Your task to perform on an android device: Play the latest video from the Washington Post Image 0: 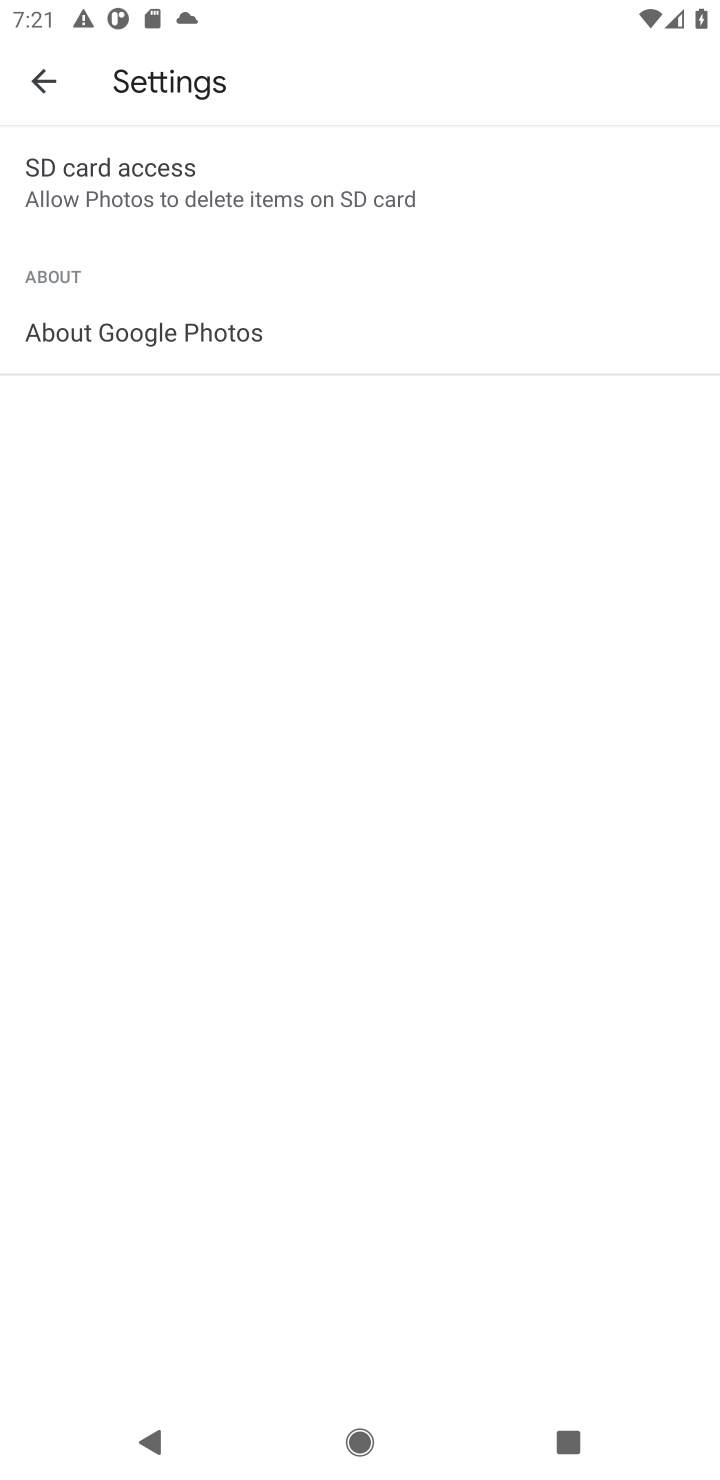
Step 0: press home button
Your task to perform on an android device: Play the latest video from the Washington Post Image 1: 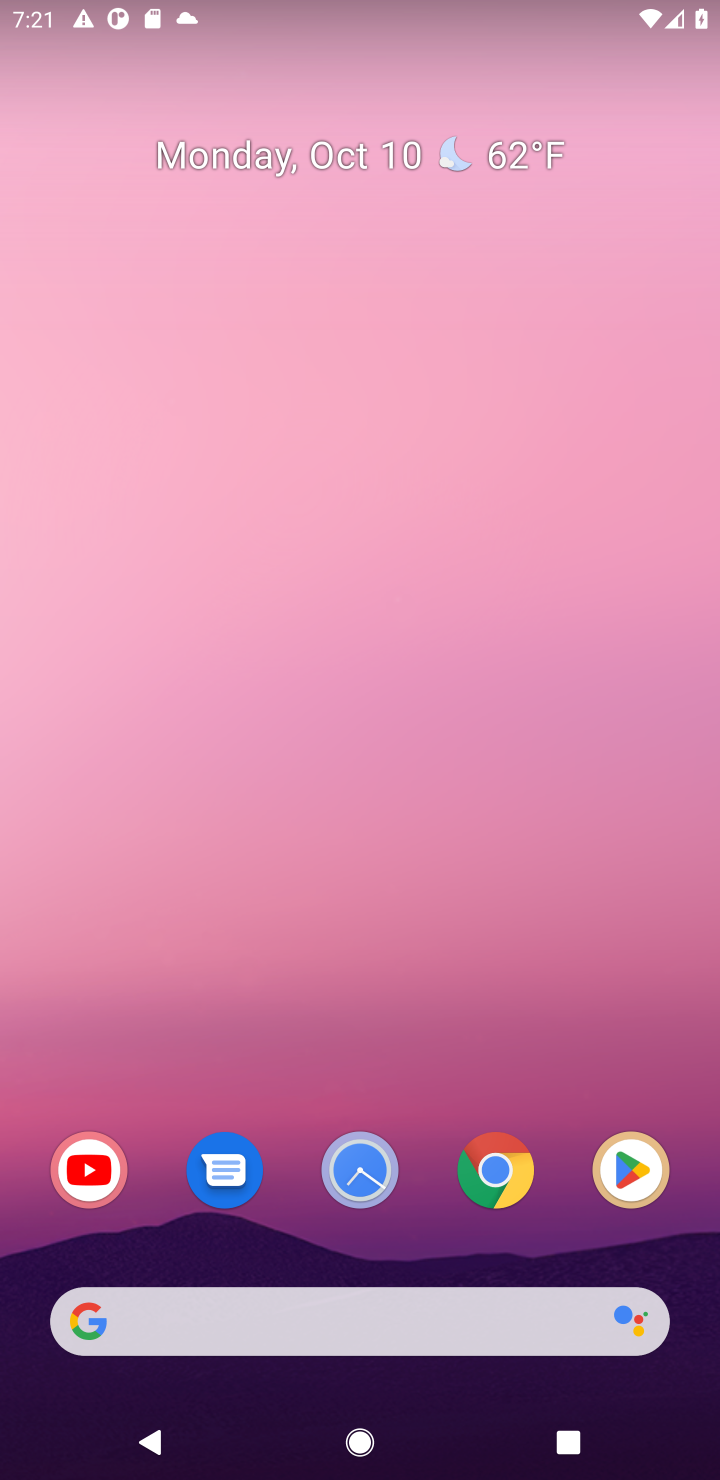
Step 1: click (116, 1166)
Your task to perform on an android device: Play the latest video from the Washington Post Image 2: 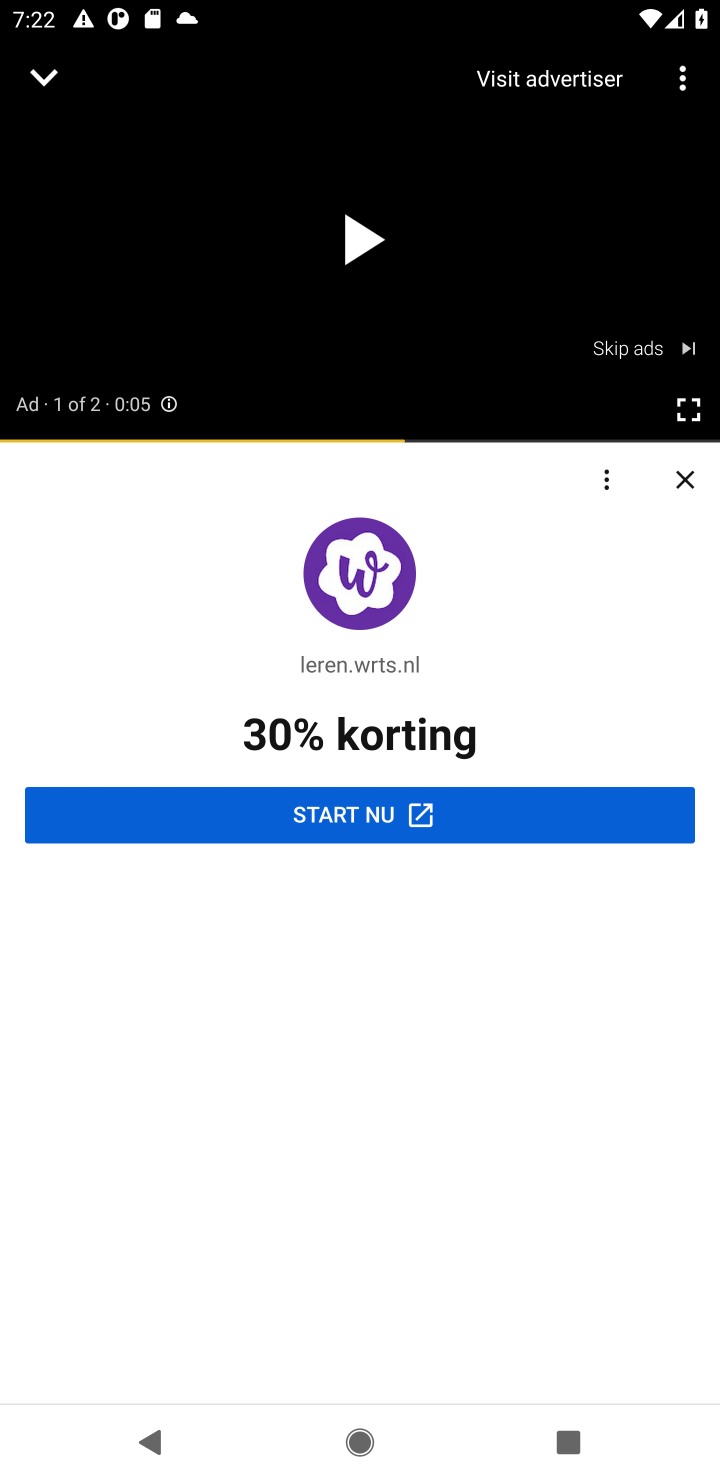
Step 2: drag from (606, 305) to (704, 1479)
Your task to perform on an android device: Play the latest video from the Washington Post Image 3: 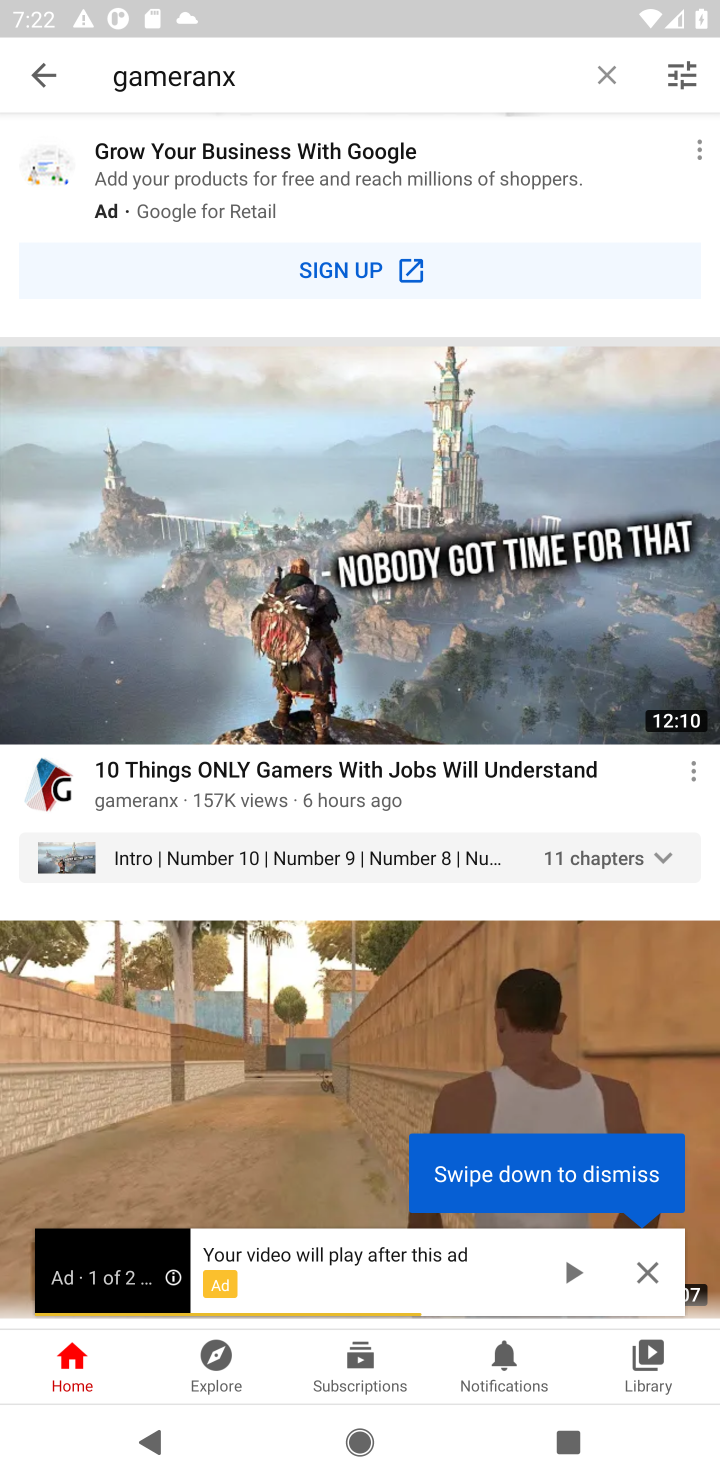
Step 3: click (641, 1273)
Your task to perform on an android device: Play the latest video from the Washington Post Image 4: 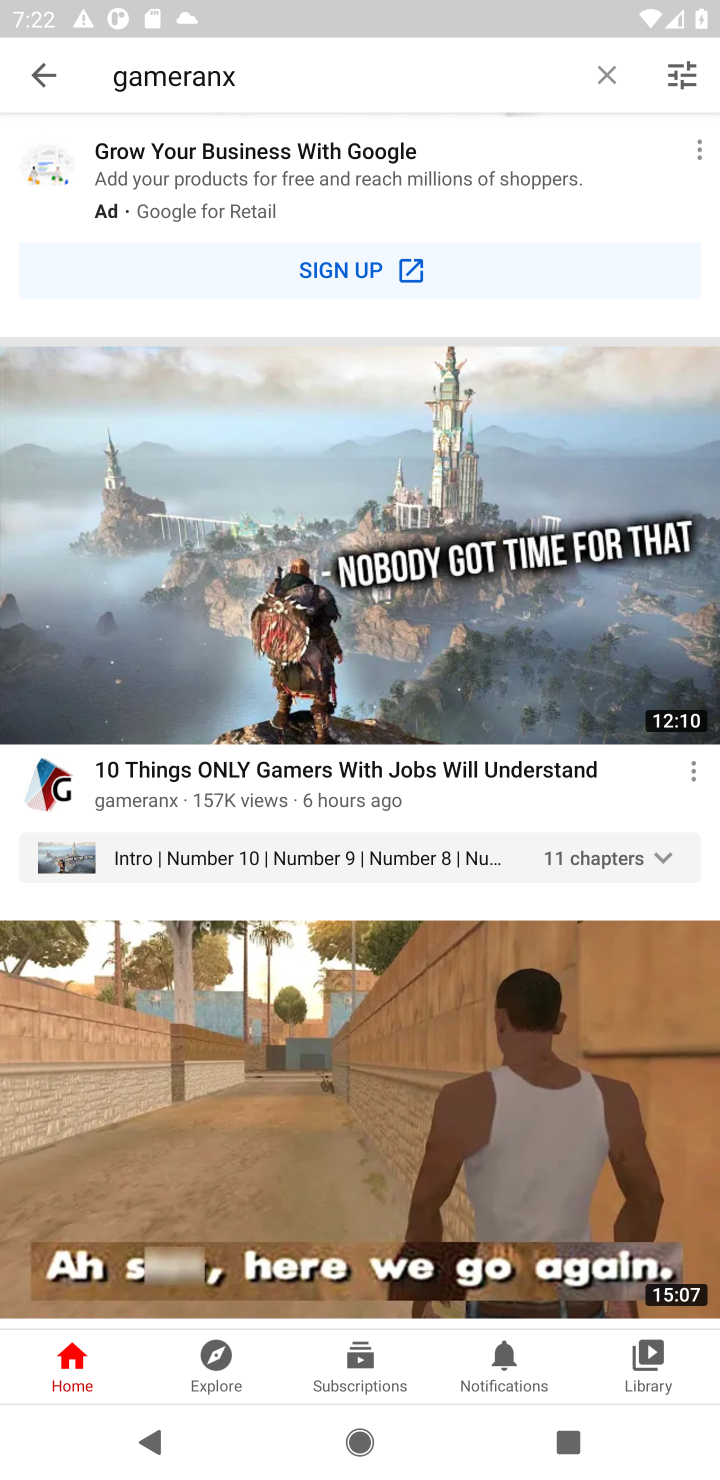
Step 4: click (601, 76)
Your task to perform on an android device: Play the latest video from the Washington Post Image 5: 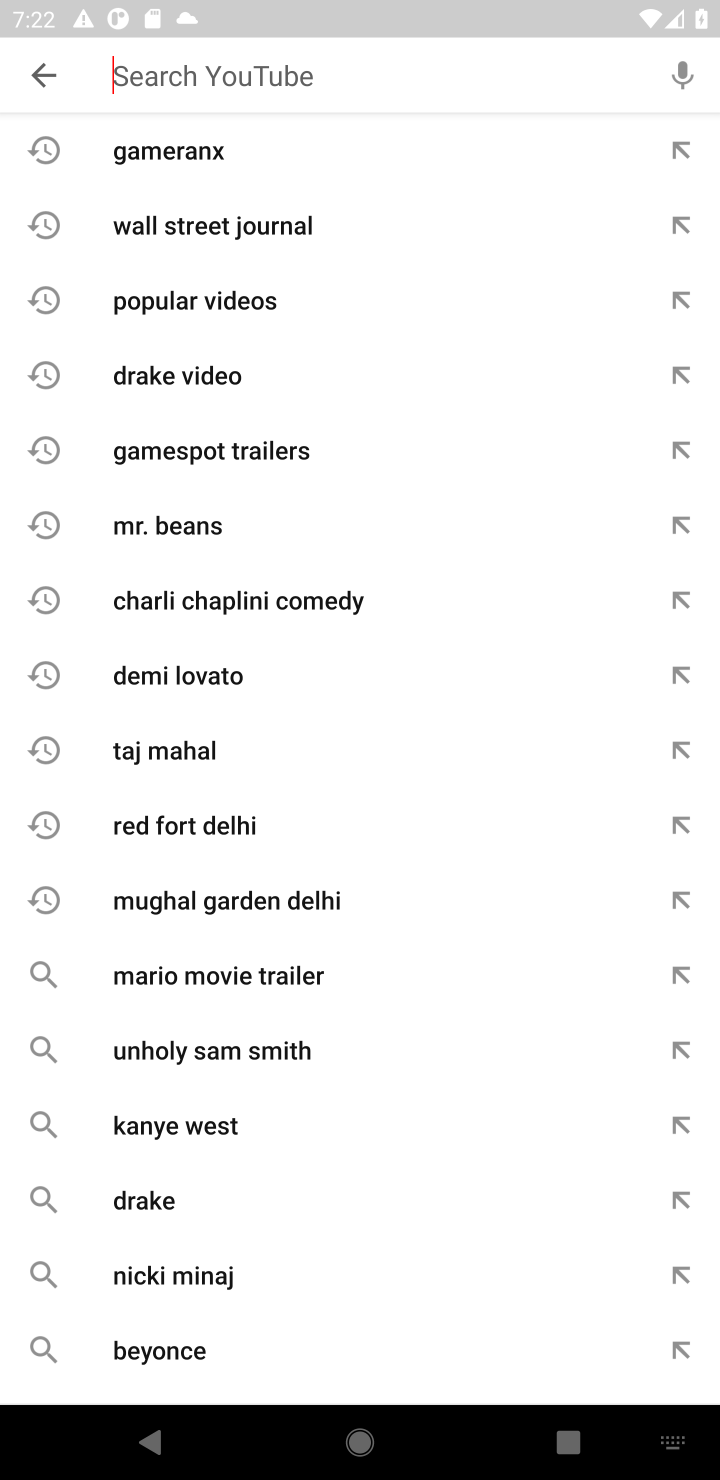
Step 5: type "Washington Post"
Your task to perform on an android device: Play the latest video from the Washington Post Image 6: 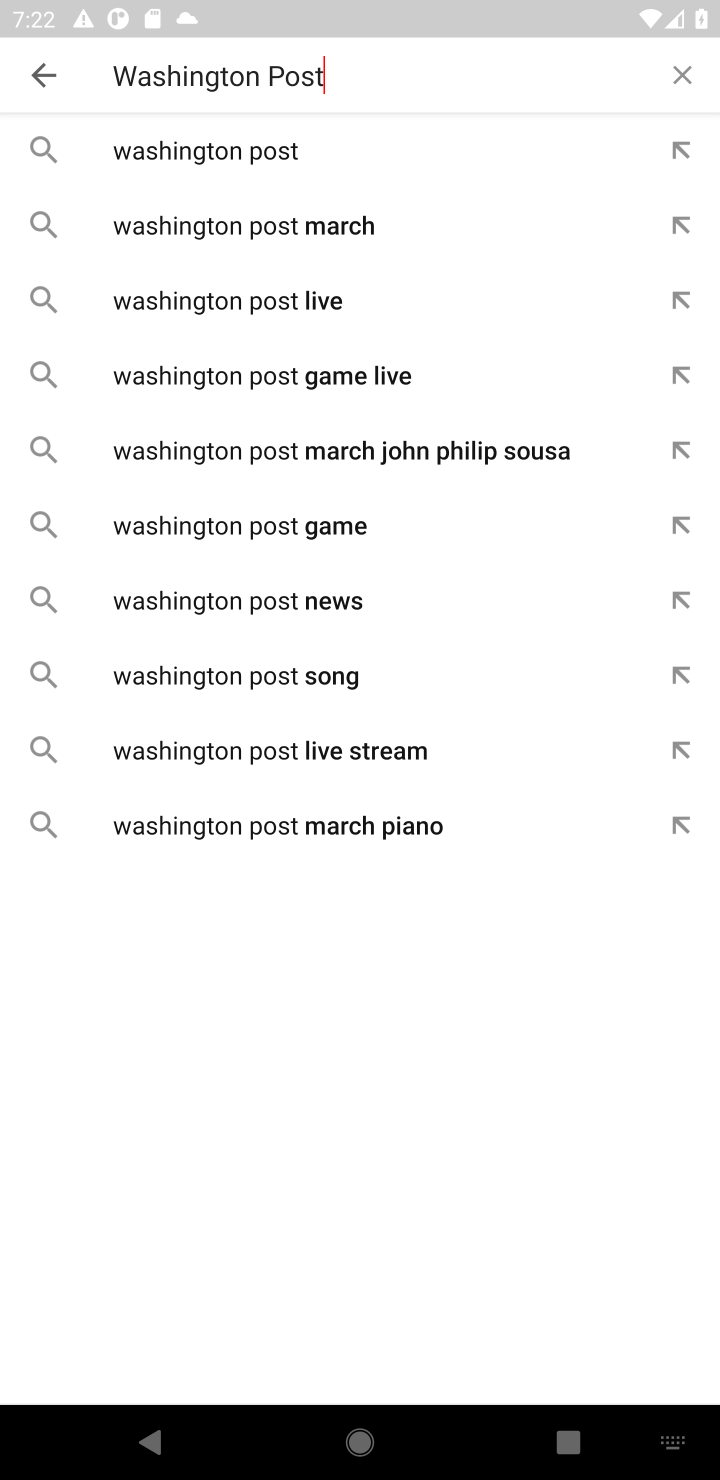
Step 6: click (375, 147)
Your task to perform on an android device: Play the latest video from the Washington Post Image 7: 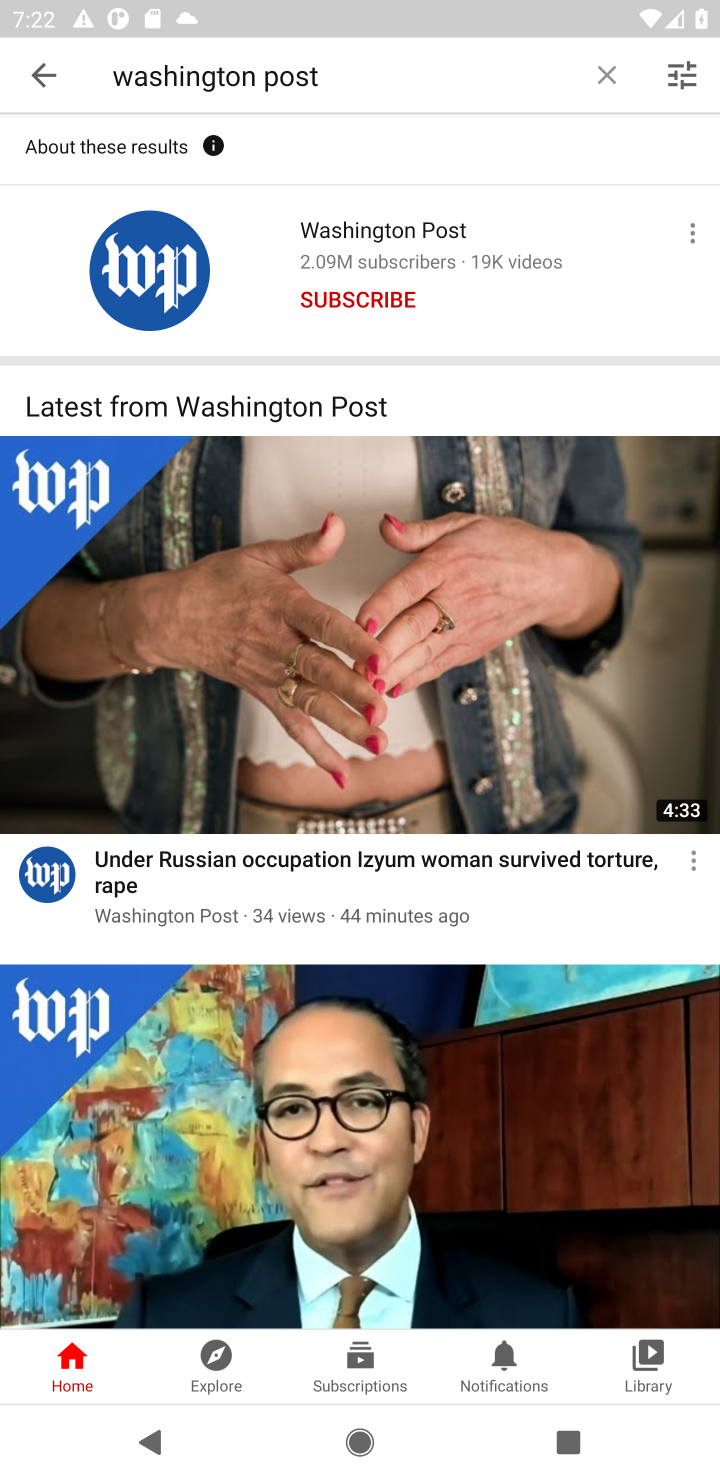
Step 7: click (430, 242)
Your task to perform on an android device: Play the latest video from the Washington Post Image 8: 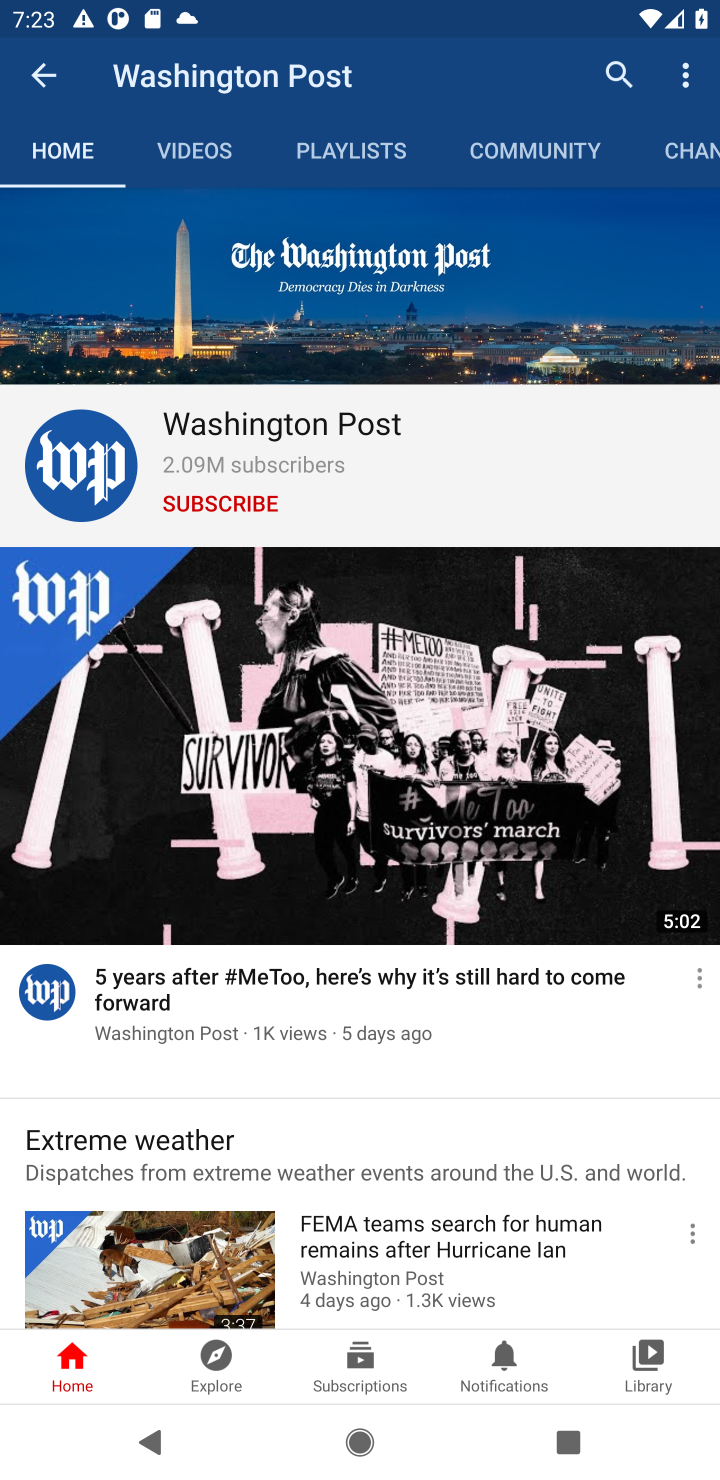
Step 8: click (180, 166)
Your task to perform on an android device: Play the latest video from the Washington Post Image 9: 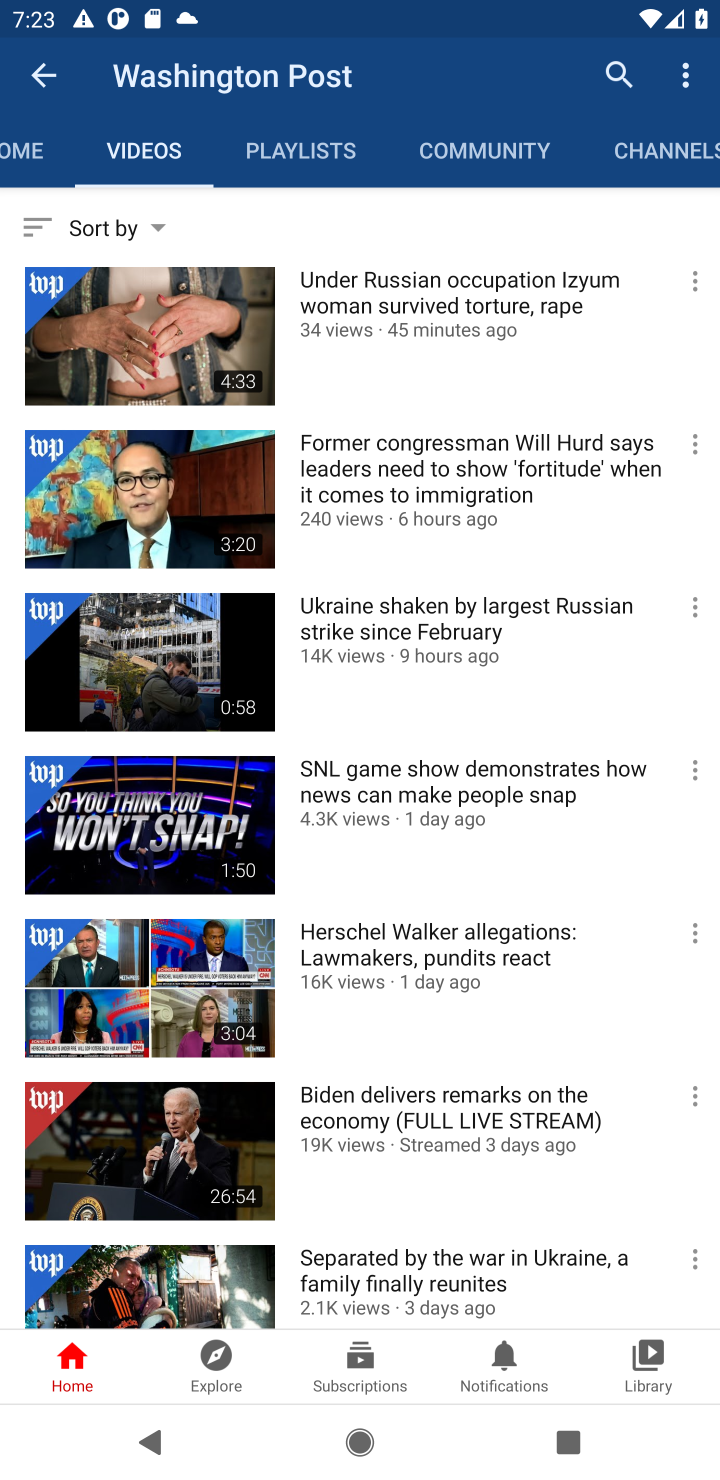
Step 9: click (392, 355)
Your task to perform on an android device: Play the latest video from the Washington Post Image 10: 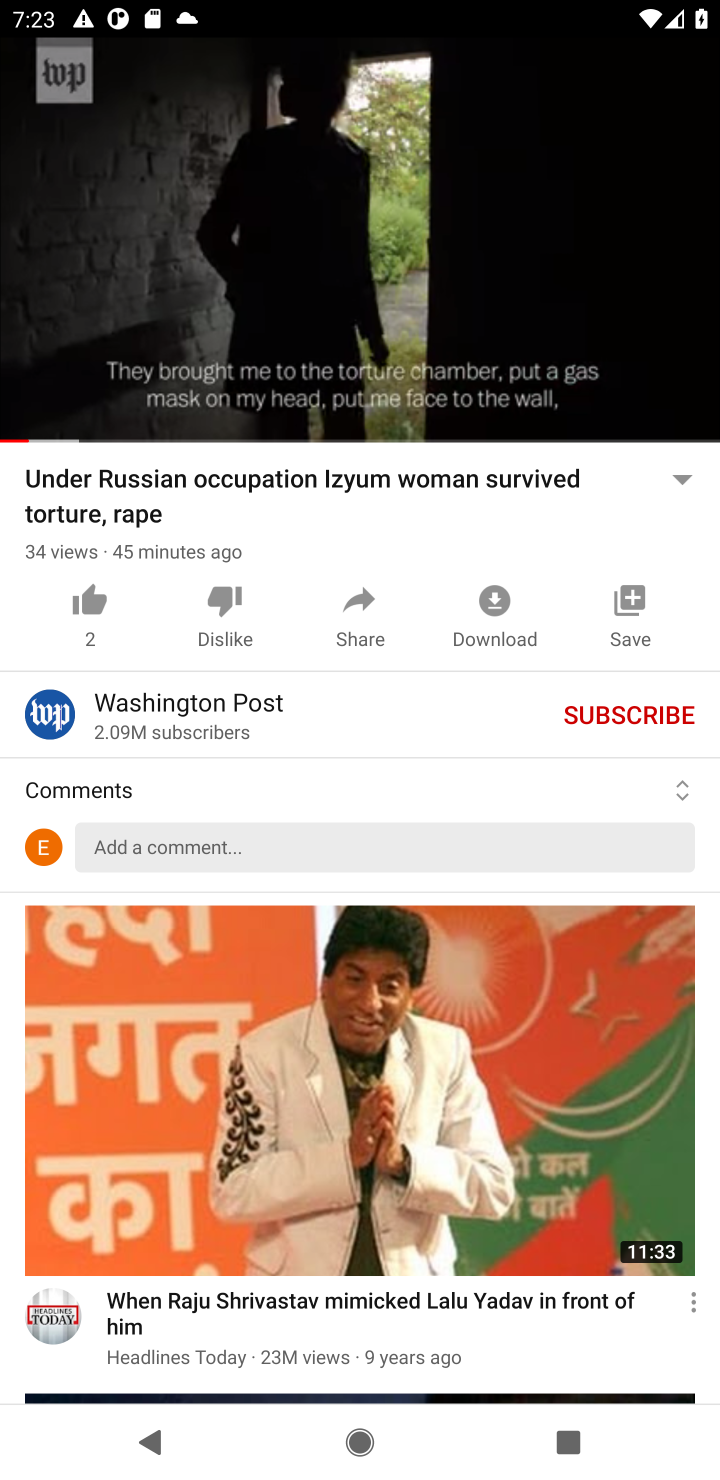
Step 10: task complete